Your task to perform on an android device: Open Google Maps Image 0: 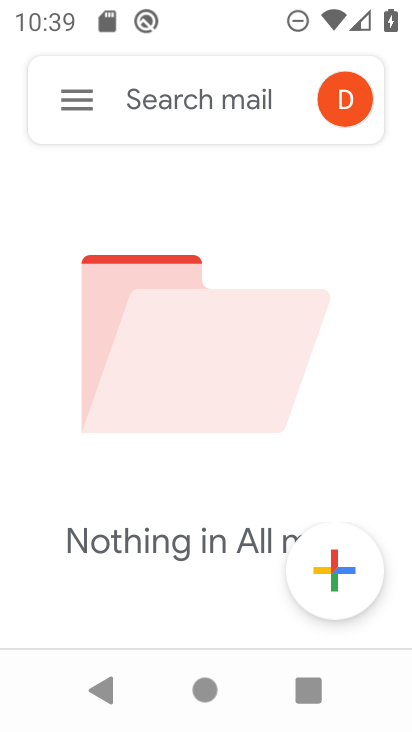
Step 0: press home button
Your task to perform on an android device: Open Google Maps Image 1: 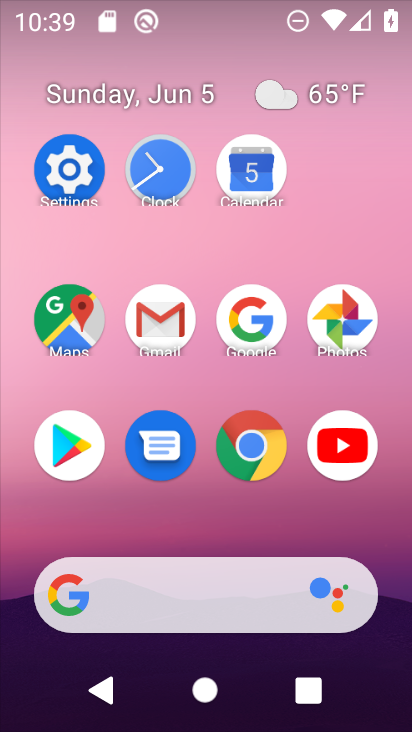
Step 1: click (83, 325)
Your task to perform on an android device: Open Google Maps Image 2: 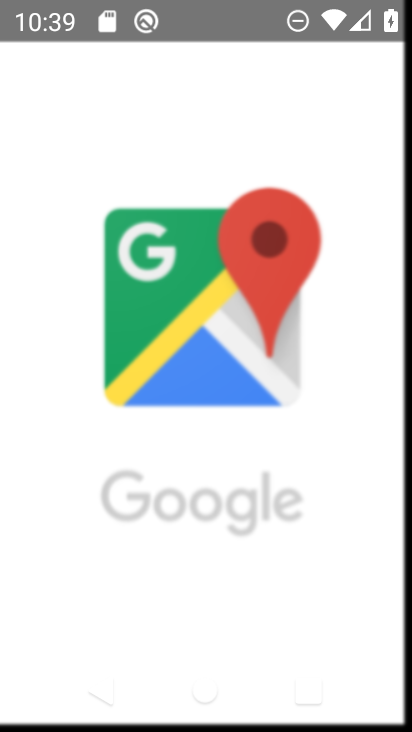
Step 2: task complete